Your task to perform on an android device: uninstall "Pandora - Music & Podcasts" Image 0: 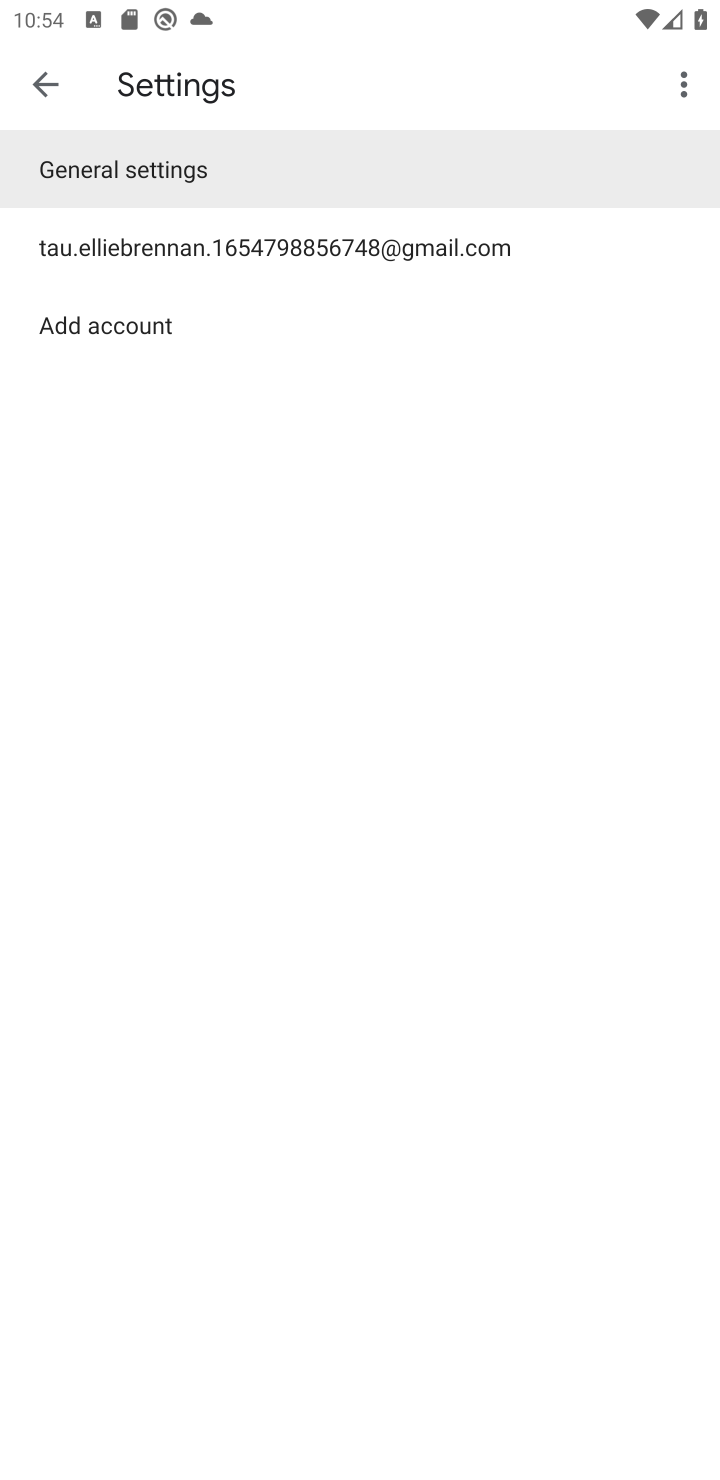
Step 0: press home button
Your task to perform on an android device: uninstall "Pandora - Music & Podcasts" Image 1: 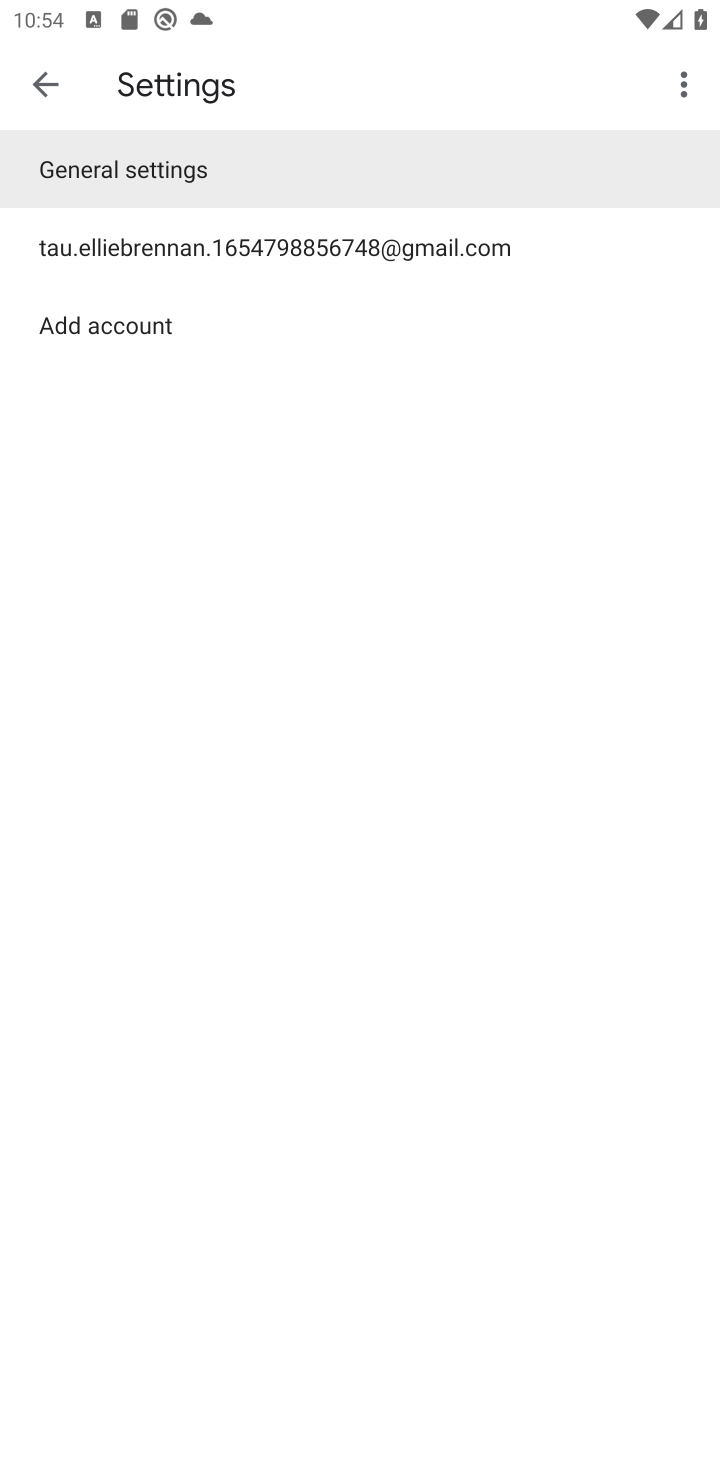
Step 1: press home button
Your task to perform on an android device: uninstall "Pandora - Music & Podcasts" Image 2: 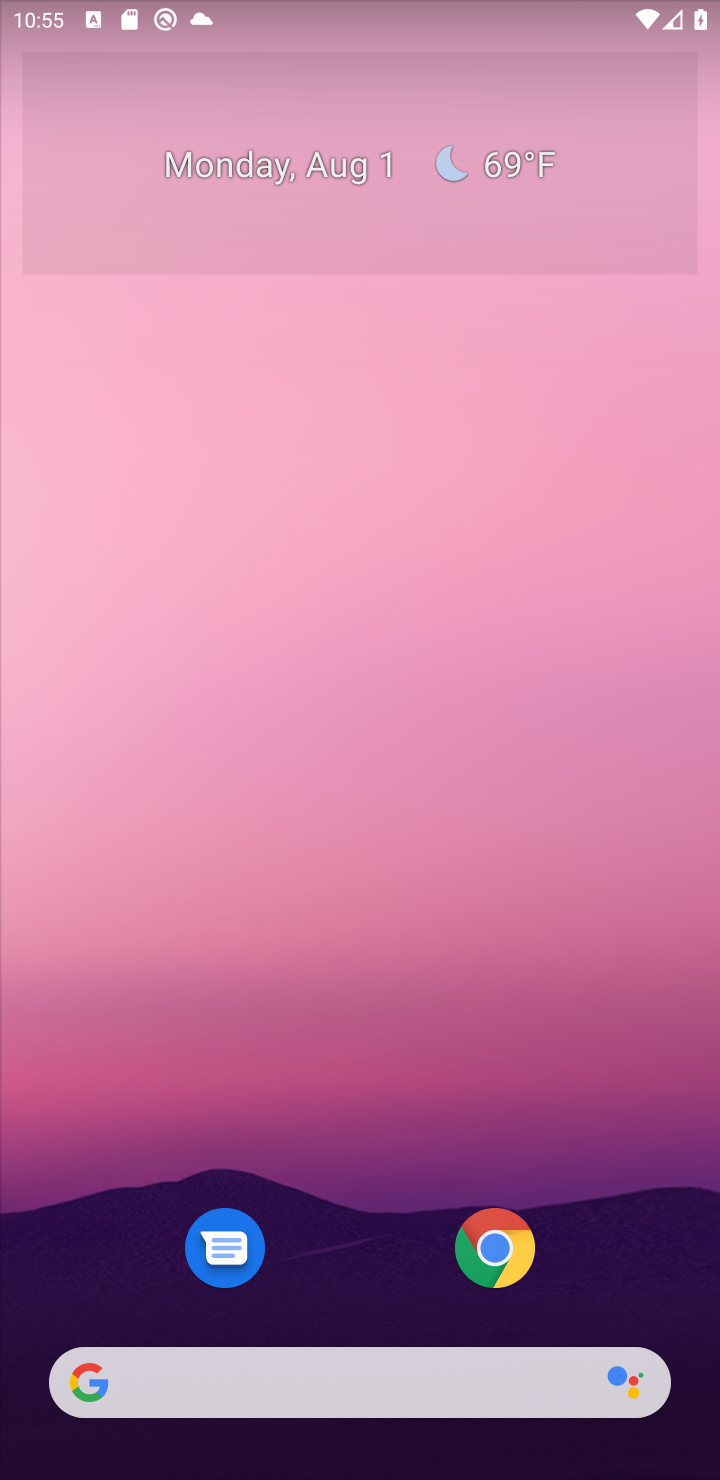
Step 2: drag from (401, 472) to (481, 95)
Your task to perform on an android device: uninstall "Pandora - Music & Podcasts" Image 3: 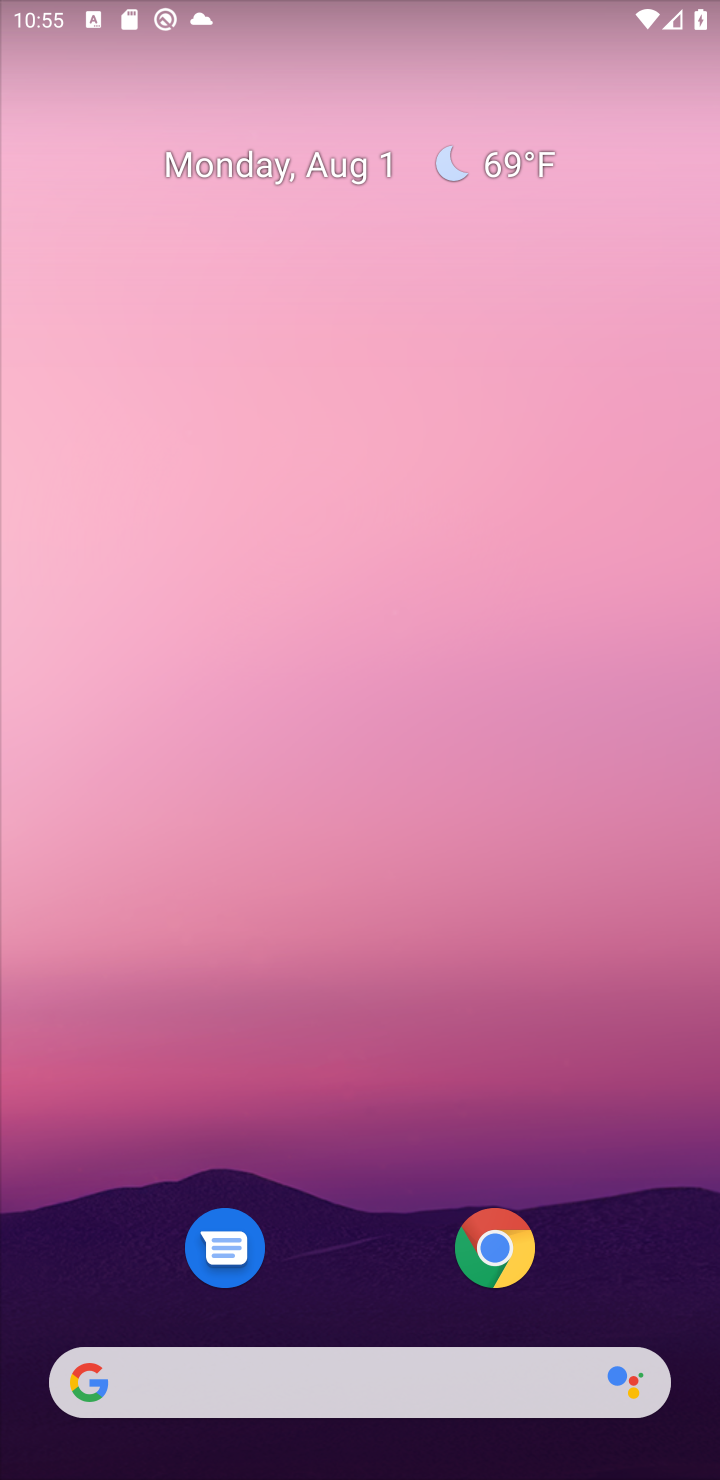
Step 3: drag from (363, 1248) to (447, 287)
Your task to perform on an android device: uninstall "Pandora - Music & Podcasts" Image 4: 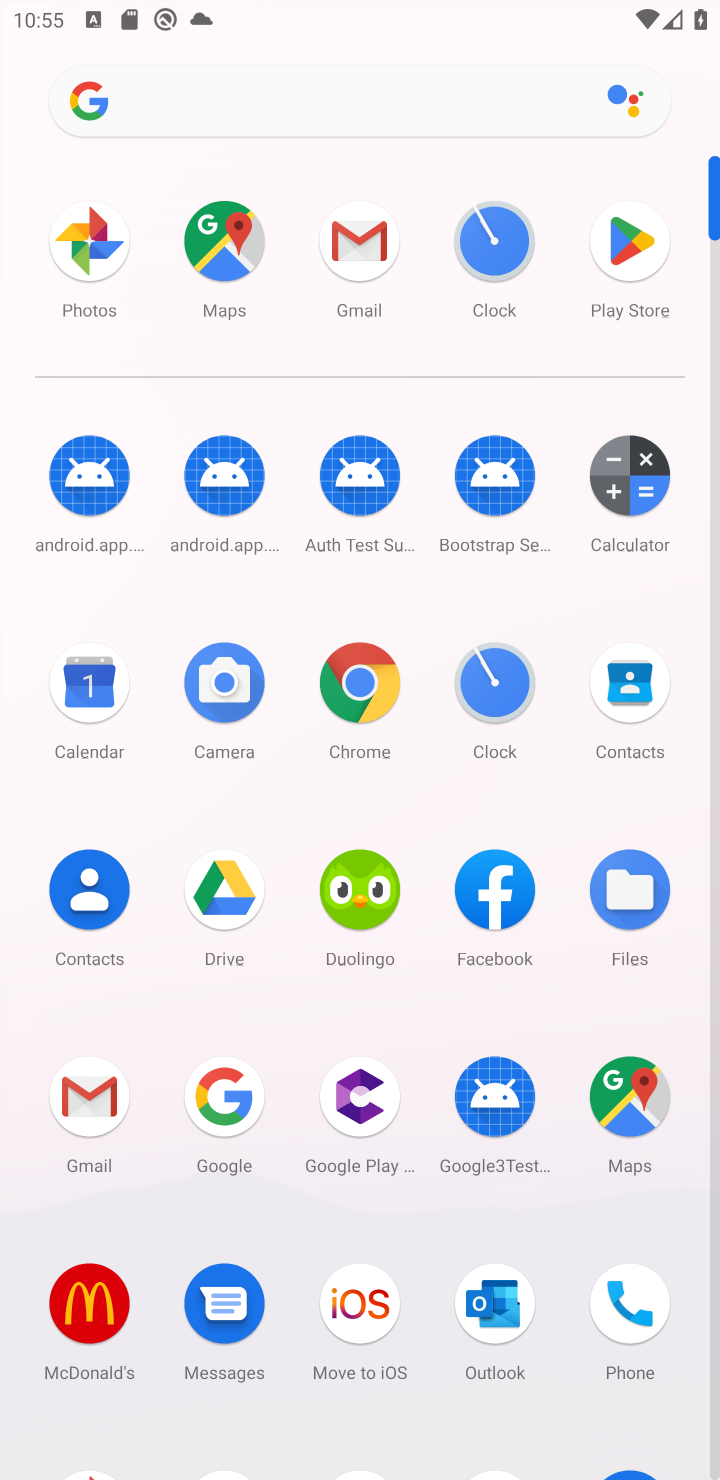
Step 4: drag from (277, 1166) to (397, 455)
Your task to perform on an android device: uninstall "Pandora - Music & Podcasts" Image 5: 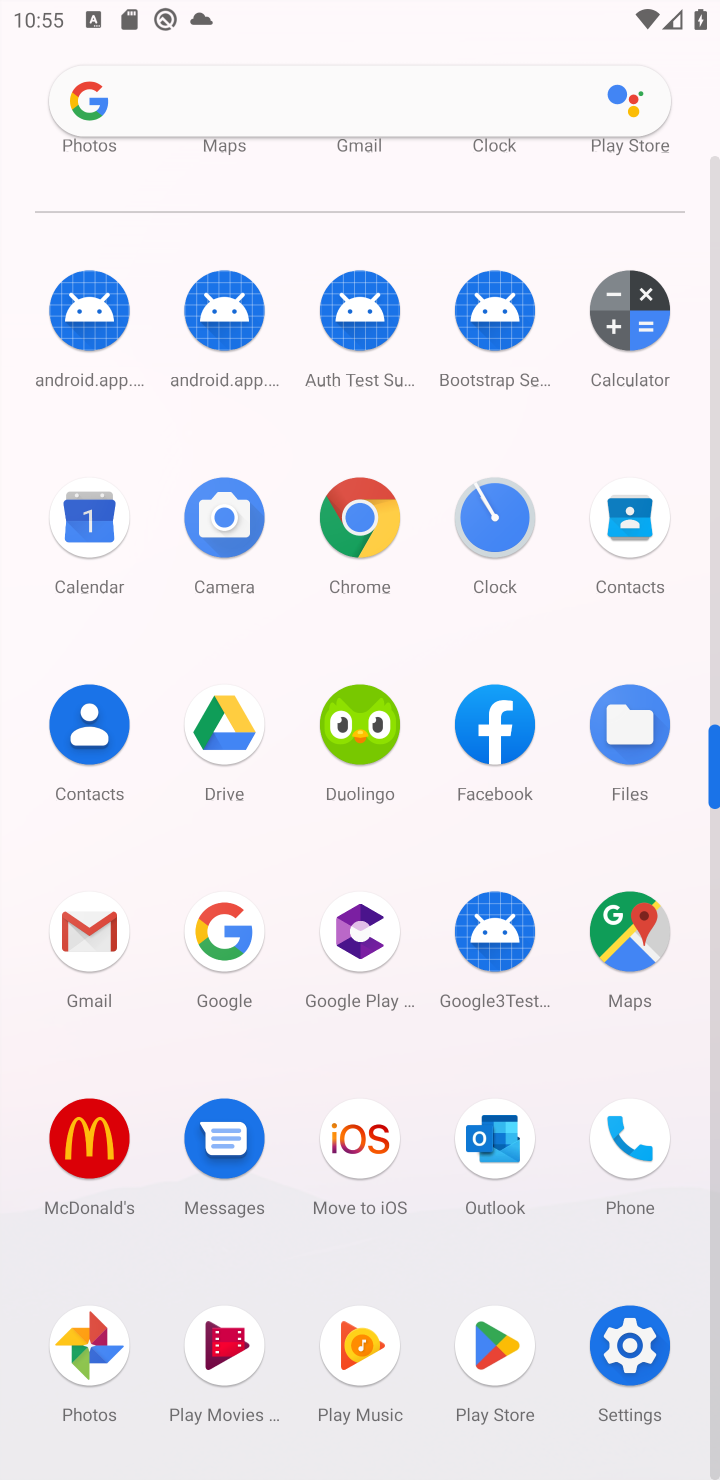
Step 5: click (508, 1335)
Your task to perform on an android device: uninstall "Pandora - Music & Podcasts" Image 6: 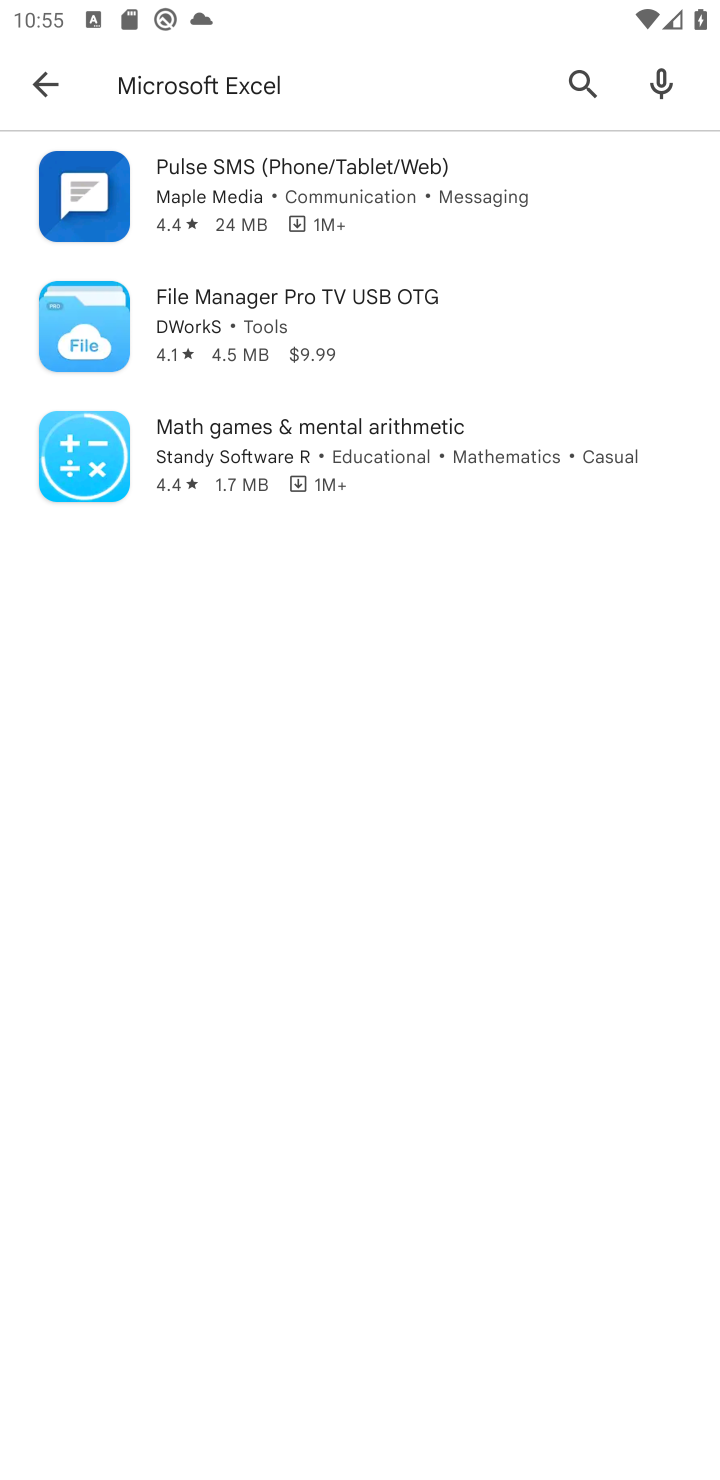
Step 6: click (308, 94)
Your task to perform on an android device: uninstall "Pandora - Music & Podcasts" Image 7: 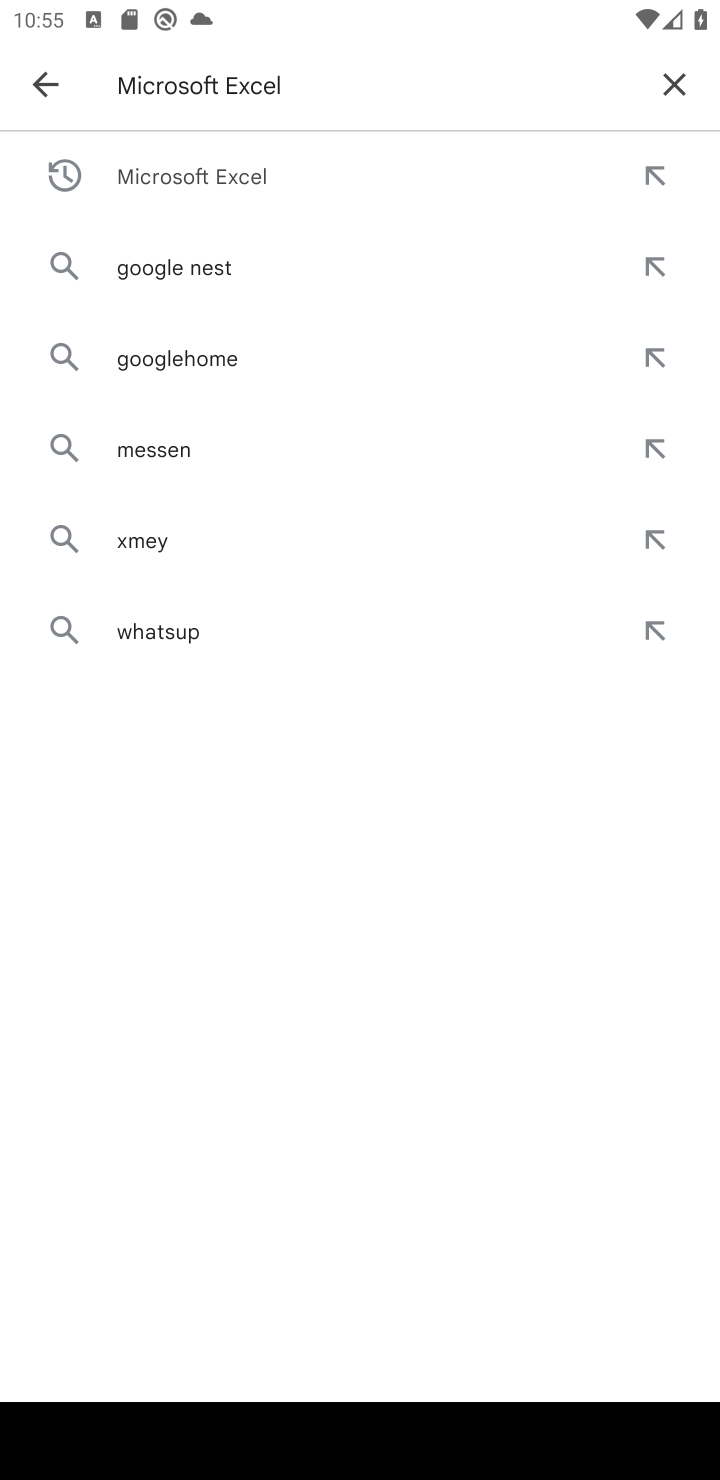
Step 7: click (673, 71)
Your task to perform on an android device: uninstall "Pandora - Music & Podcasts" Image 8: 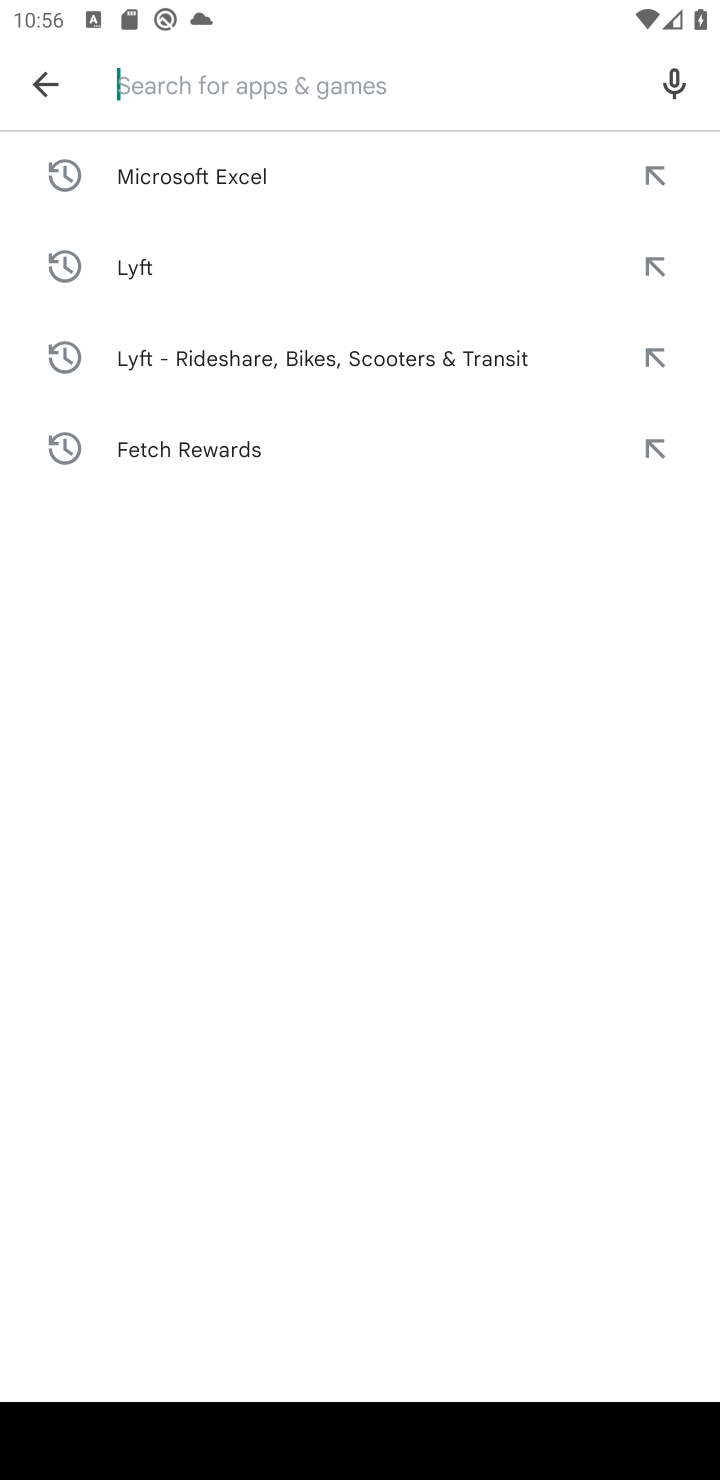
Step 8: type "Pandora - Music & Podcats"
Your task to perform on an android device: uninstall "Pandora - Music & Podcasts" Image 9: 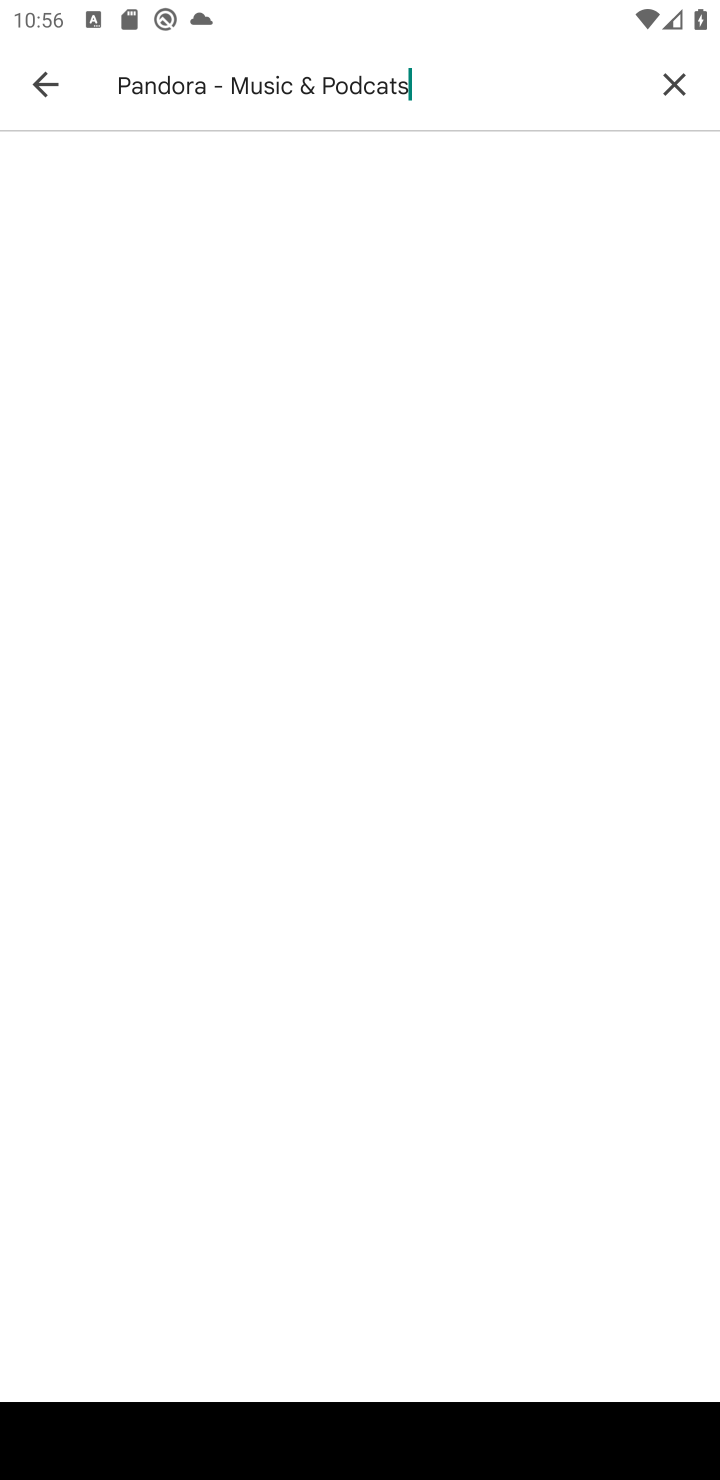
Step 9: press enter
Your task to perform on an android device: uninstall "Pandora - Music & Podcasts" Image 10: 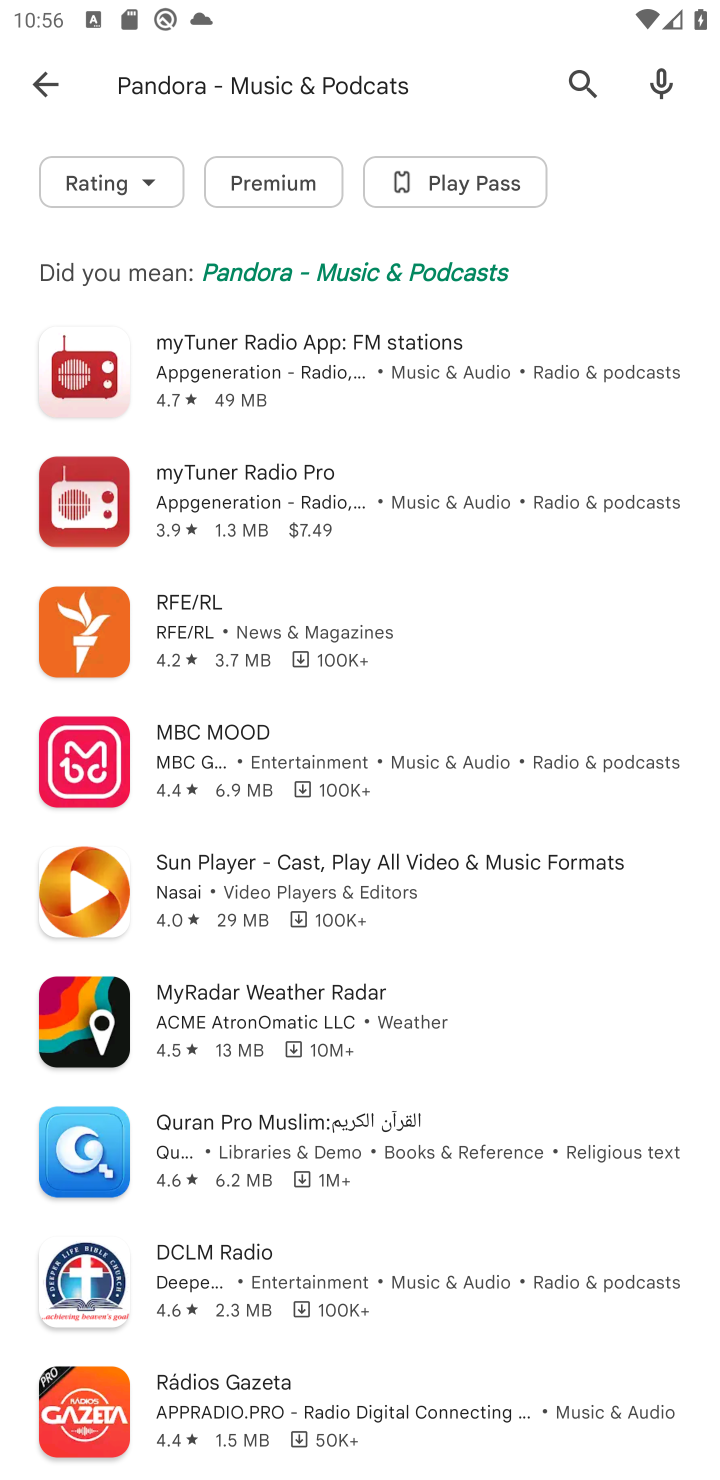
Step 10: click (330, 267)
Your task to perform on an android device: uninstall "Pandora - Music & Podcasts" Image 11: 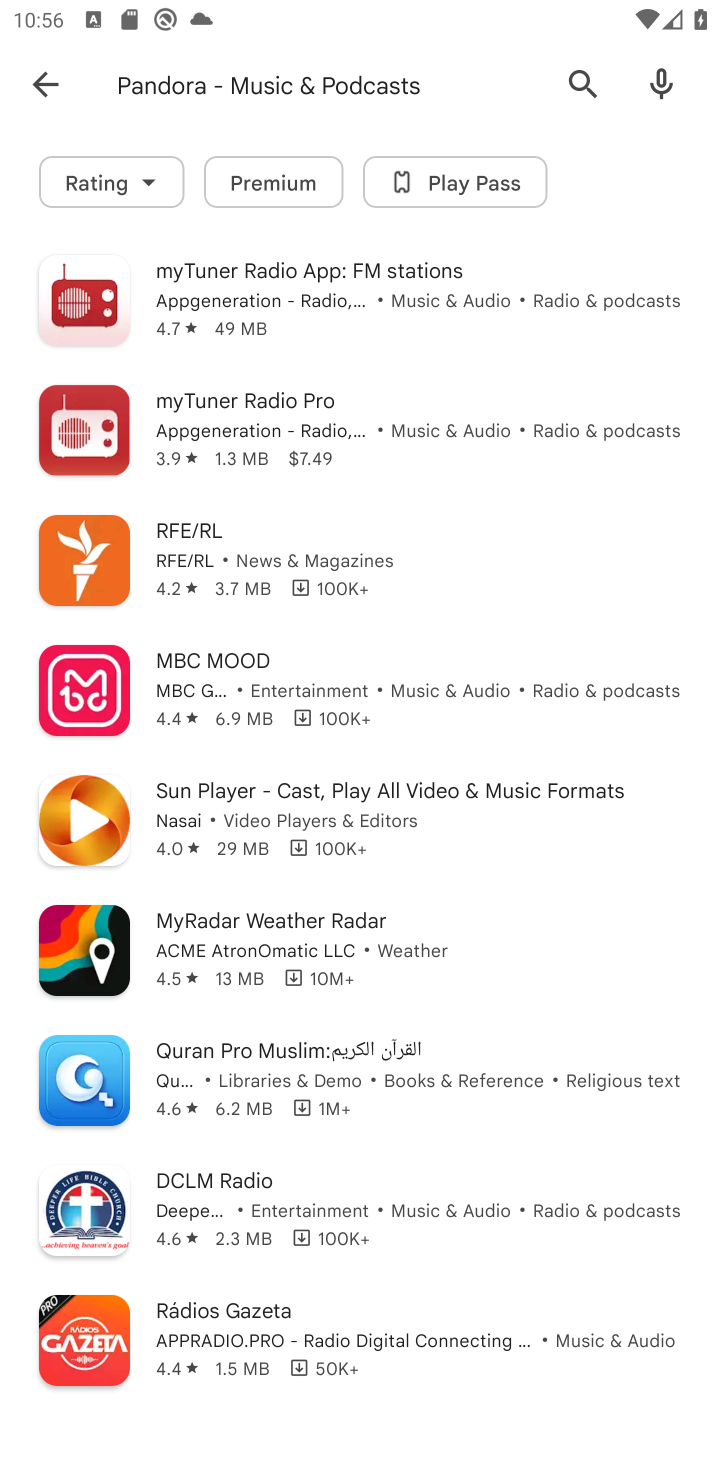
Step 11: task complete